Your task to perform on an android device: empty trash in the gmail app Image 0: 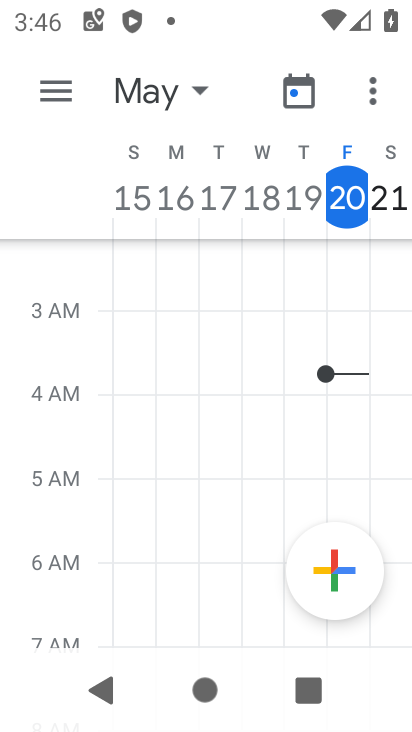
Step 0: press home button
Your task to perform on an android device: empty trash in the gmail app Image 1: 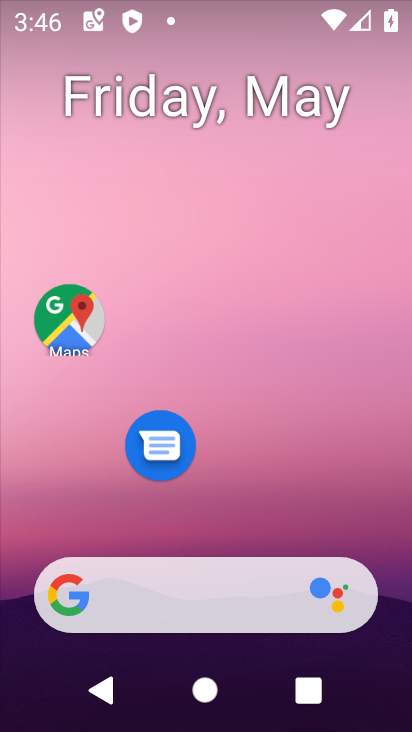
Step 1: press home button
Your task to perform on an android device: empty trash in the gmail app Image 2: 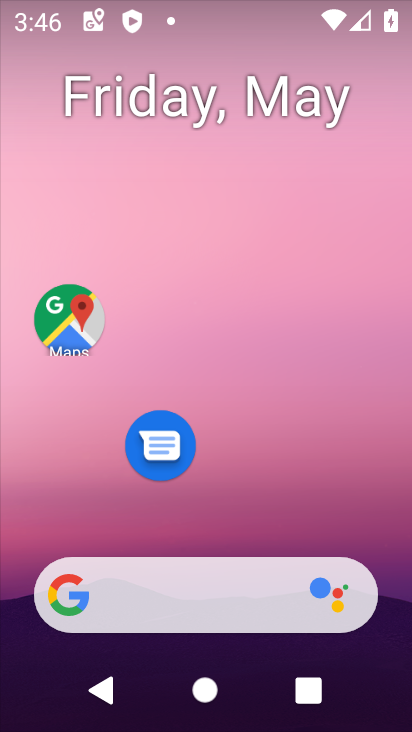
Step 2: drag from (200, 450) to (212, 10)
Your task to perform on an android device: empty trash in the gmail app Image 3: 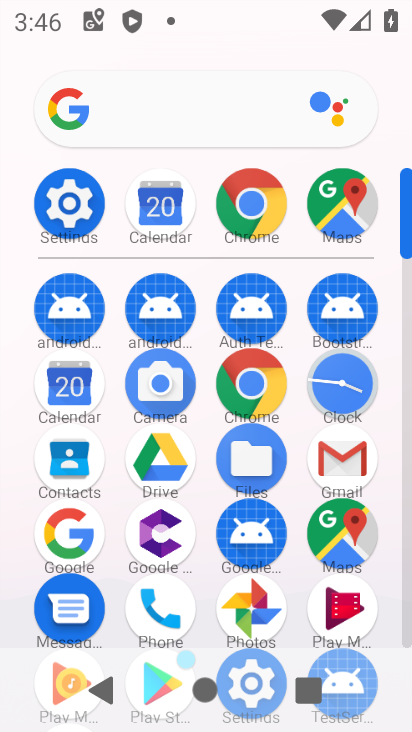
Step 3: drag from (218, 512) to (215, 45)
Your task to perform on an android device: empty trash in the gmail app Image 4: 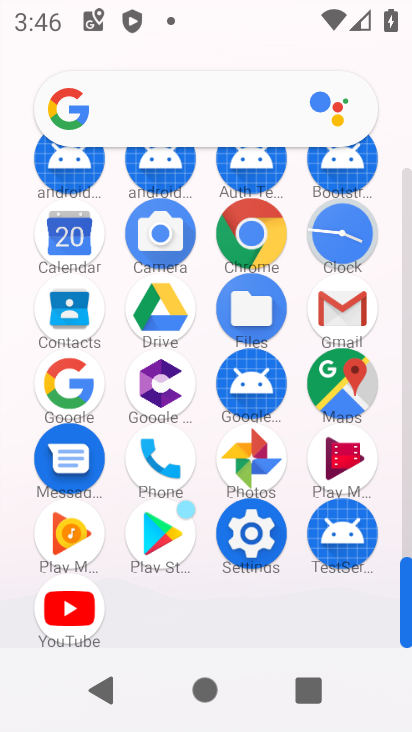
Step 4: click (339, 303)
Your task to perform on an android device: empty trash in the gmail app Image 5: 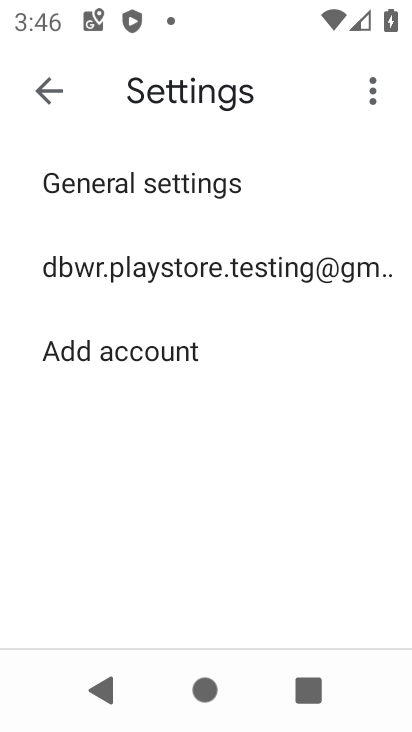
Step 5: click (47, 97)
Your task to perform on an android device: empty trash in the gmail app Image 6: 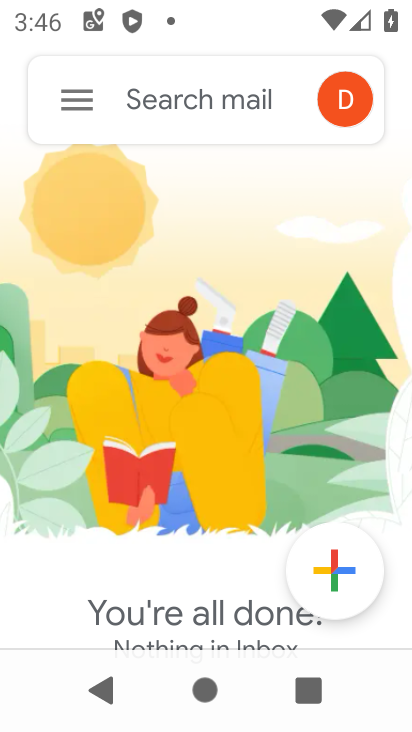
Step 6: click (76, 100)
Your task to perform on an android device: empty trash in the gmail app Image 7: 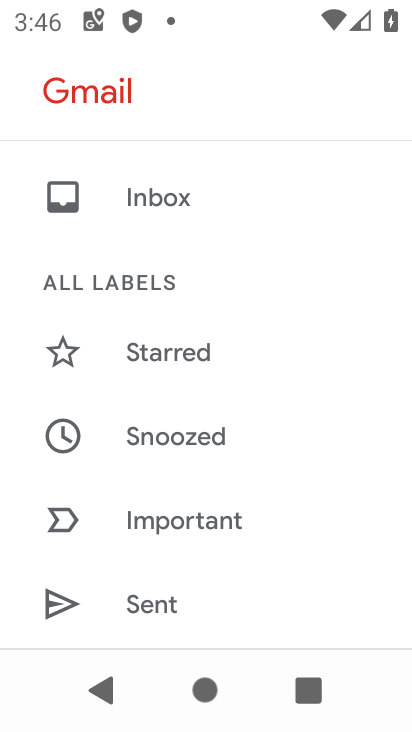
Step 7: drag from (166, 540) to (218, 163)
Your task to perform on an android device: empty trash in the gmail app Image 8: 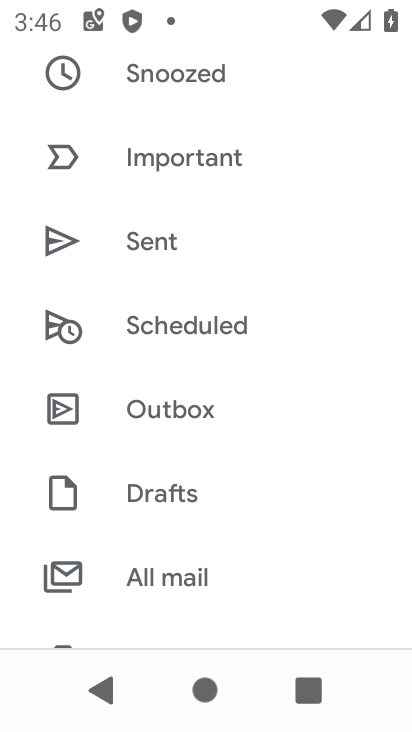
Step 8: drag from (168, 502) to (202, 51)
Your task to perform on an android device: empty trash in the gmail app Image 9: 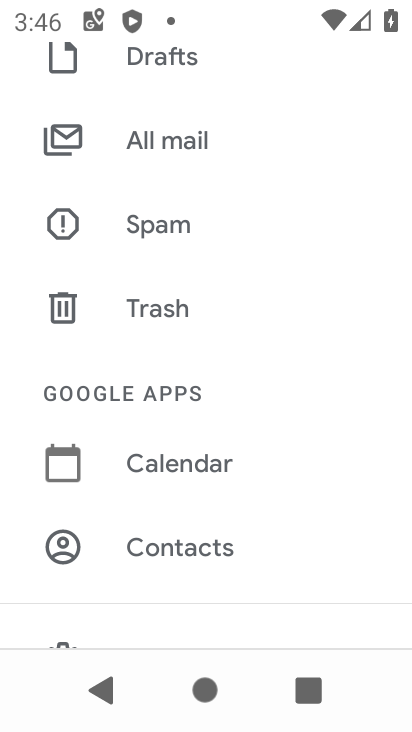
Step 9: click (177, 314)
Your task to perform on an android device: empty trash in the gmail app Image 10: 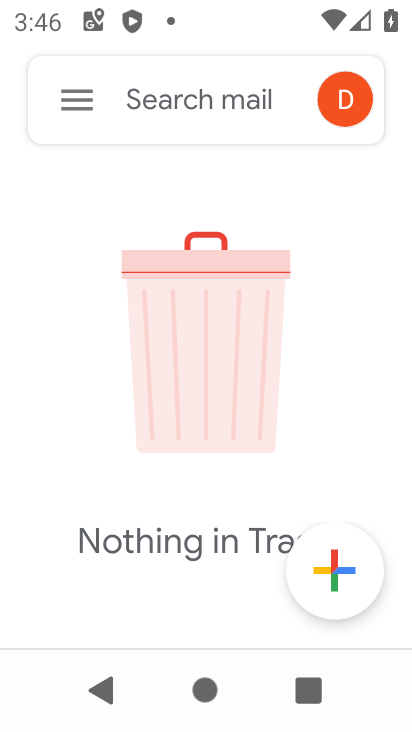
Step 10: task complete